Your task to perform on an android device: What's on my calendar today? Image 0: 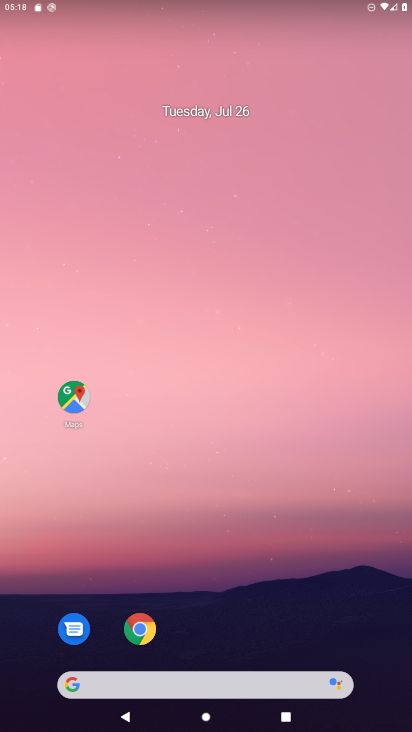
Step 0: drag from (189, 578) to (189, 209)
Your task to perform on an android device: What's on my calendar today? Image 1: 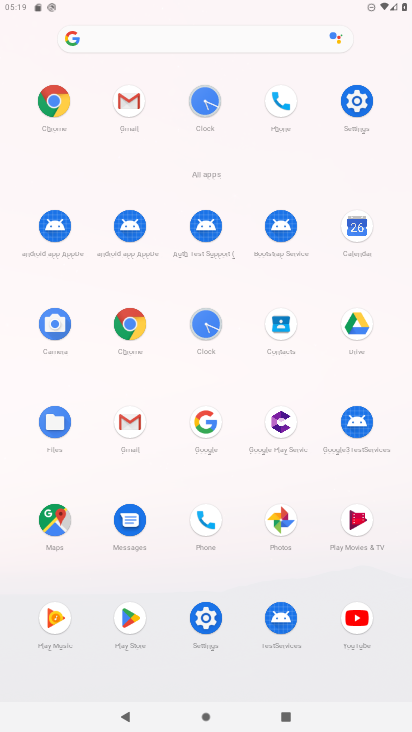
Step 1: click (359, 241)
Your task to perform on an android device: What's on my calendar today? Image 2: 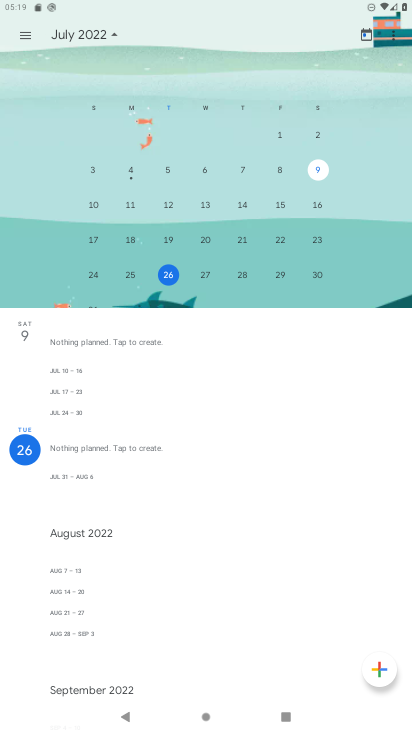
Step 2: task complete